Your task to perform on an android device: add a contact Image 0: 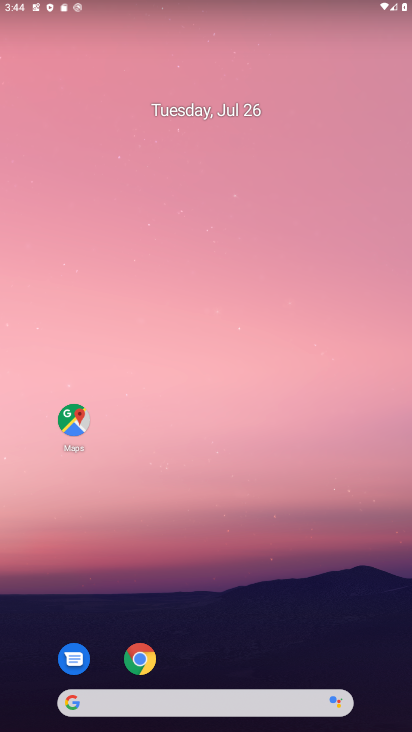
Step 0: drag from (290, 666) to (247, 2)
Your task to perform on an android device: add a contact Image 1: 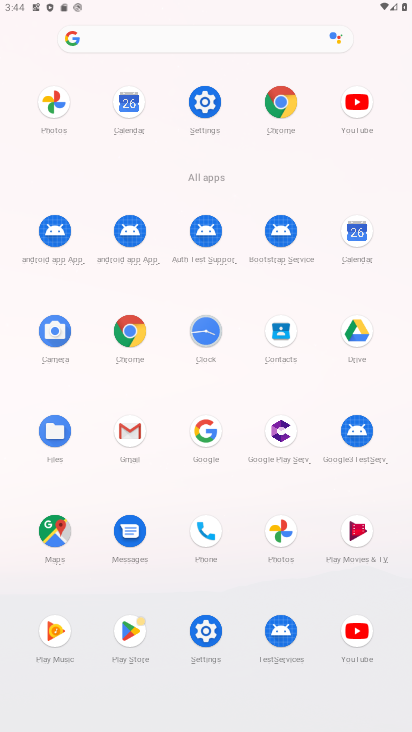
Step 1: click (290, 340)
Your task to perform on an android device: add a contact Image 2: 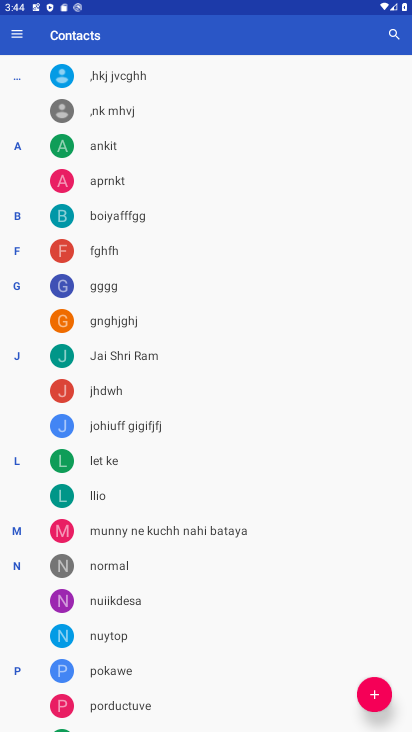
Step 2: click (376, 690)
Your task to perform on an android device: add a contact Image 3: 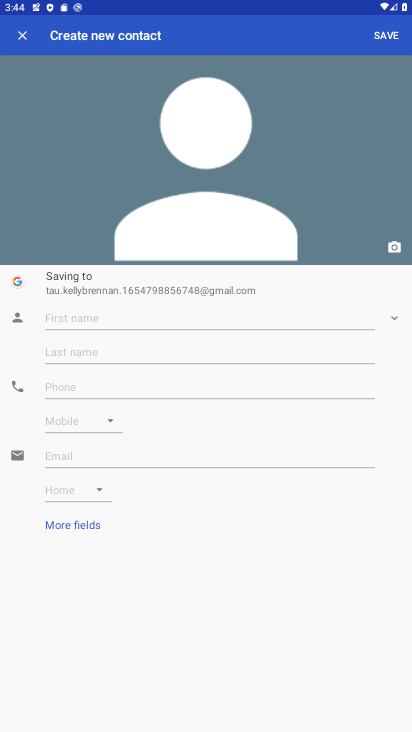
Step 3: click (191, 321)
Your task to perform on an android device: add a contact Image 4: 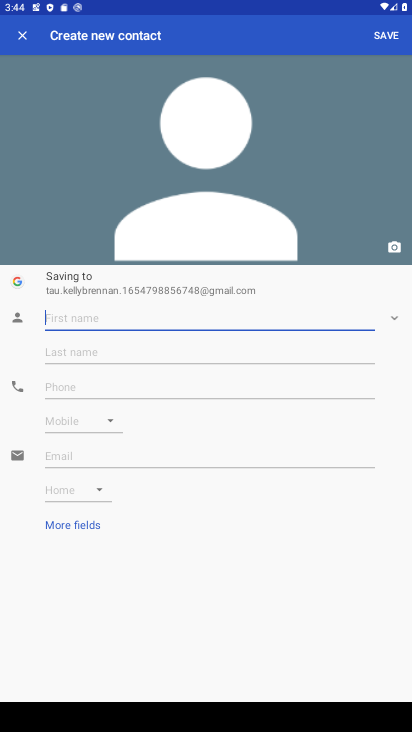
Step 4: type "tryeu"
Your task to perform on an android device: add a contact Image 5: 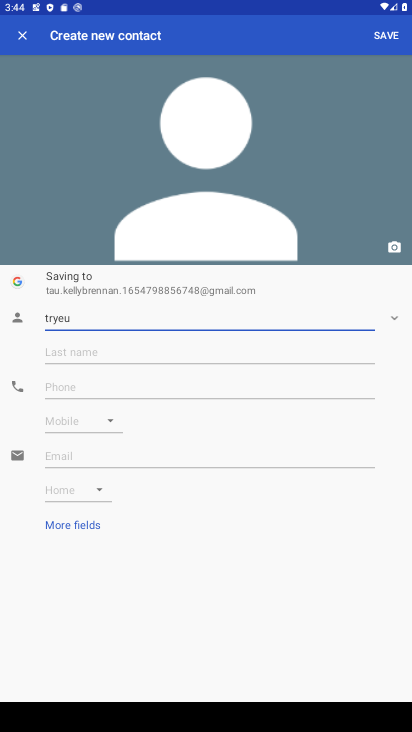
Step 5: click (194, 382)
Your task to perform on an android device: add a contact Image 6: 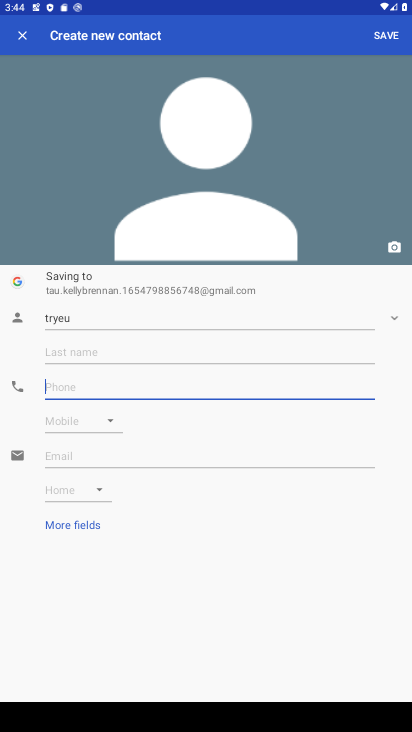
Step 6: type "3456789021"
Your task to perform on an android device: add a contact Image 7: 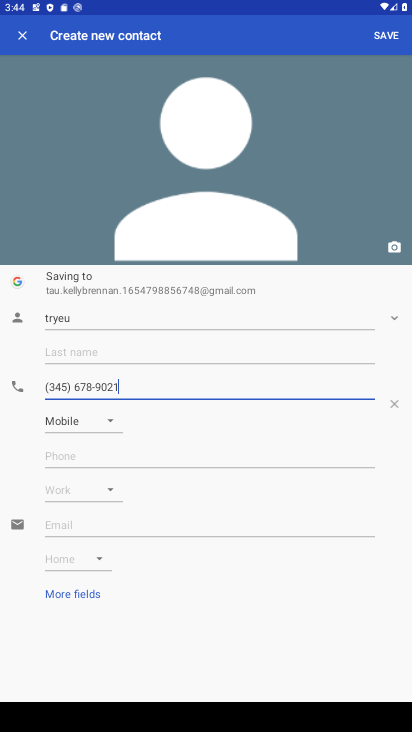
Step 7: click (389, 29)
Your task to perform on an android device: add a contact Image 8: 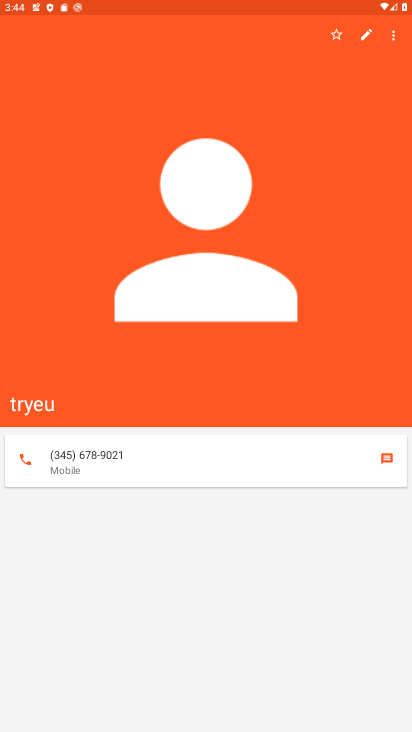
Step 8: task complete